Your task to perform on an android device: open chrome privacy settings Image 0: 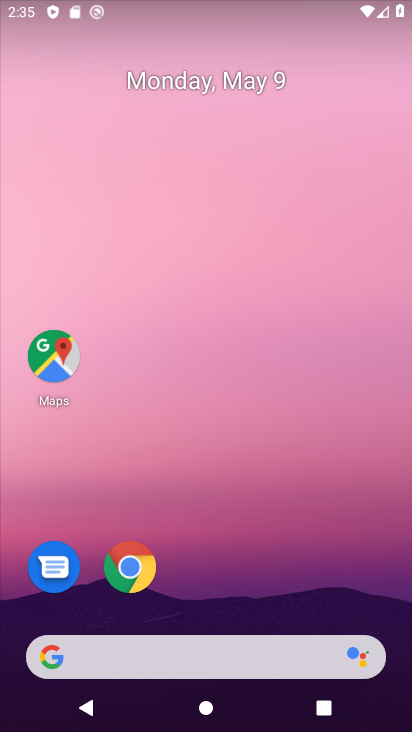
Step 0: click (137, 563)
Your task to perform on an android device: open chrome privacy settings Image 1: 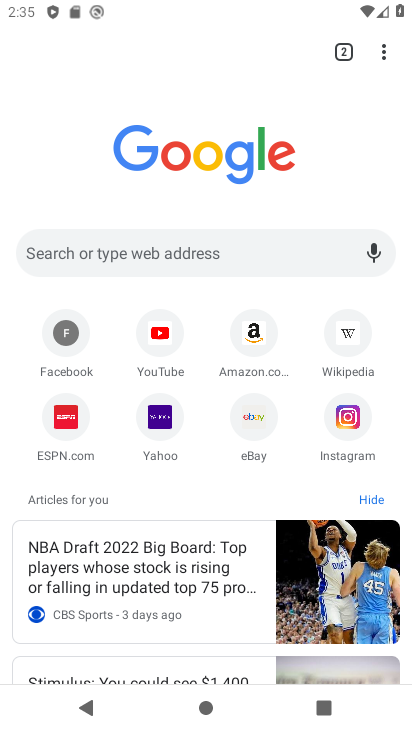
Step 1: click (388, 54)
Your task to perform on an android device: open chrome privacy settings Image 2: 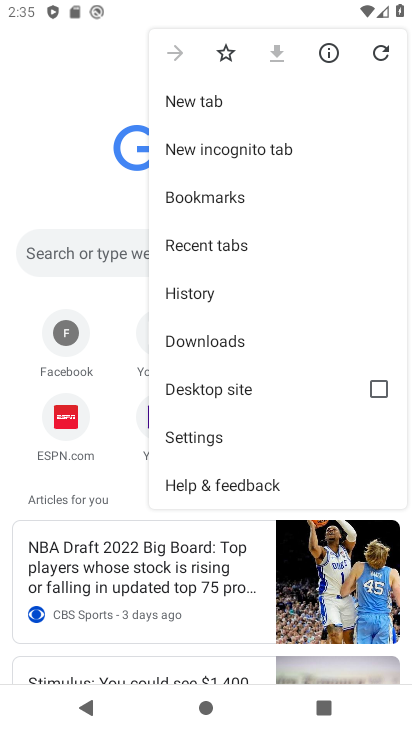
Step 2: click (199, 443)
Your task to perform on an android device: open chrome privacy settings Image 3: 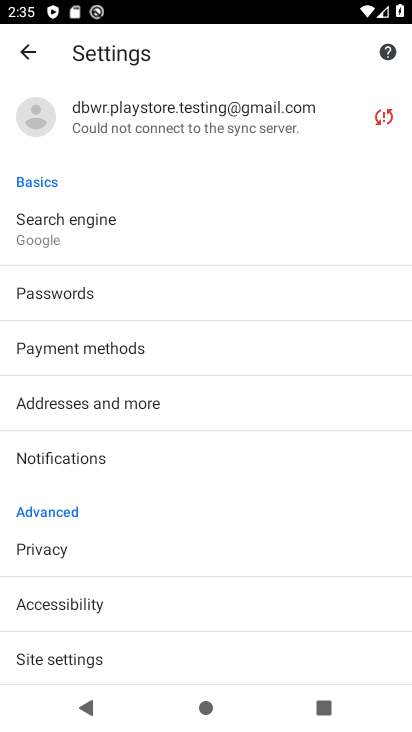
Step 3: click (48, 543)
Your task to perform on an android device: open chrome privacy settings Image 4: 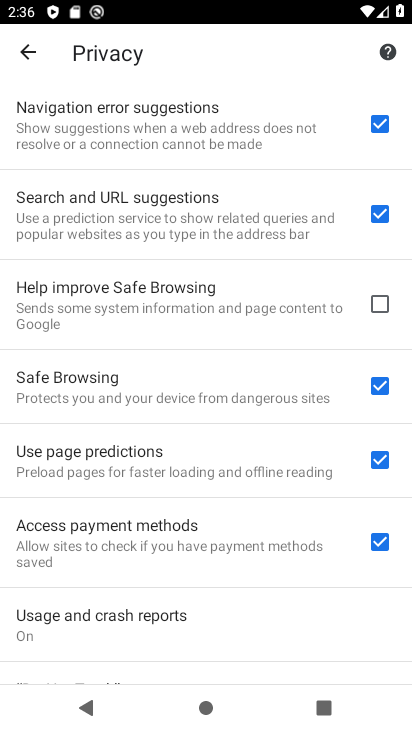
Step 4: task complete